Your task to perform on an android device: Go to Google Image 0: 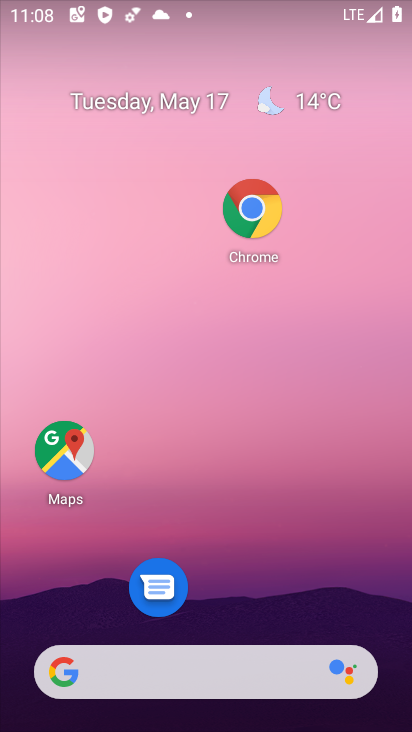
Step 0: click (60, 667)
Your task to perform on an android device: Go to Google Image 1: 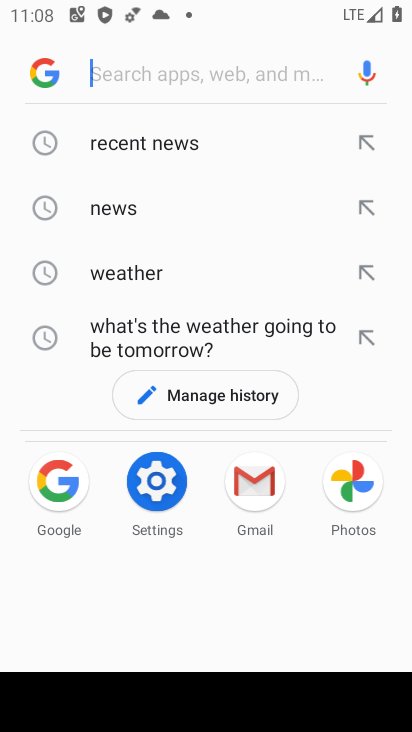
Step 1: click (62, 490)
Your task to perform on an android device: Go to Google Image 2: 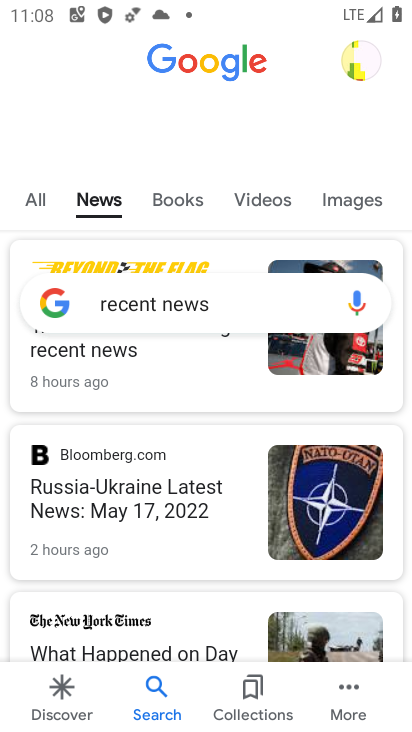
Step 2: task complete